Your task to perform on an android device: toggle pop-ups in chrome Image 0: 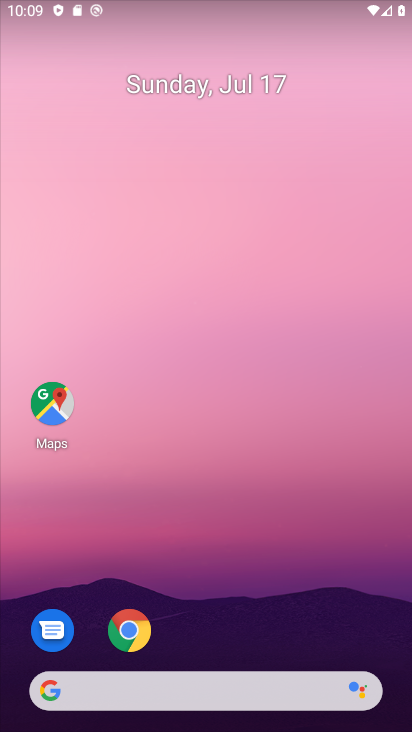
Step 0: drag from (334, 614) to (338, 52)
Your task to perform on an android device: toggle pop-ups in chrome Image 1: 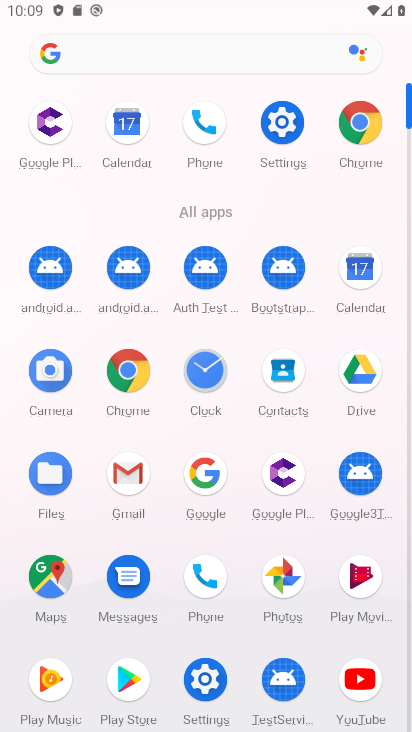
Step 1: click (131, 379)
Your task to perform on an android device: toggle pop-ups in chrome Image 2: 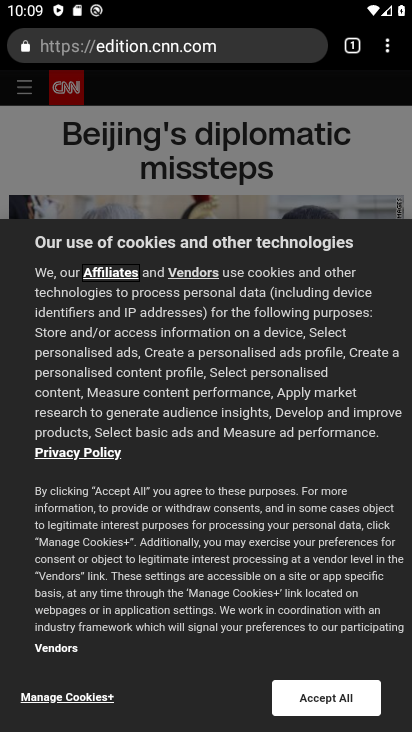
Step 2: click (389, 53)
Your task to perform on an android device: toggle pop-ups in chrome Image 3: 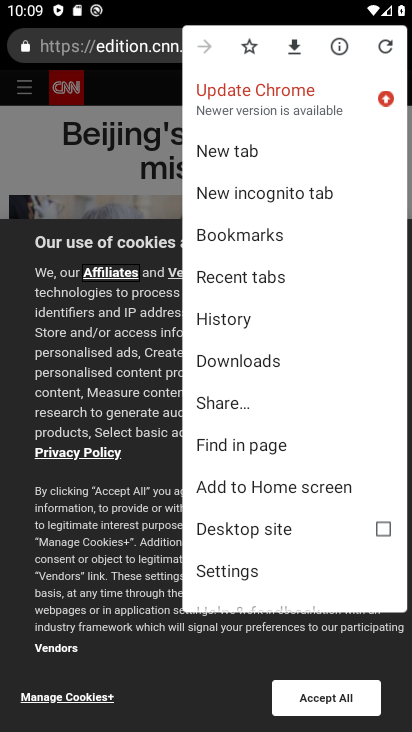
Step 3: drag from (363, 382) to (363, 287)
Your task to perform on an android device: toggle pop-ups in chrome Image 4: 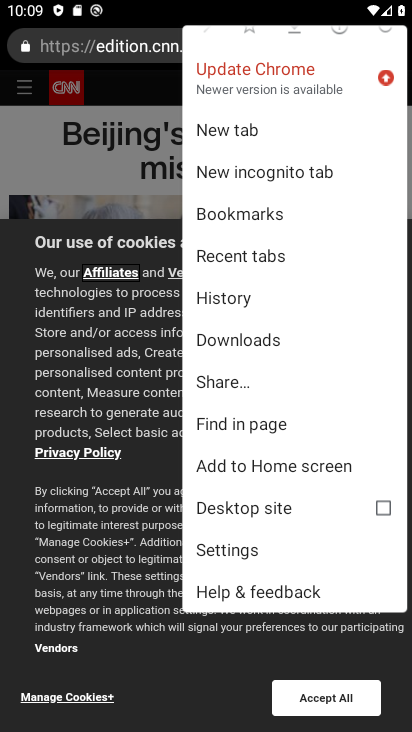
Step 4: click (259, 555)
Your task to perform on an android device: toggle pop-ups in chrome Image 5: 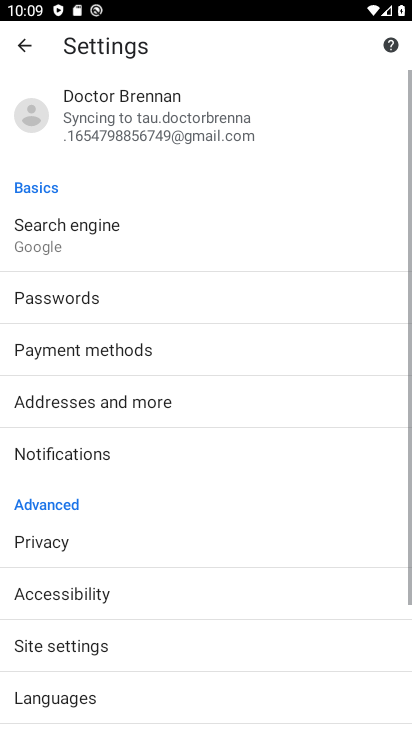
Step 5: drag from (335, 512) to (342, 427)
Your task to perform on an android device: toggle pop-ups in chrome Image 6: 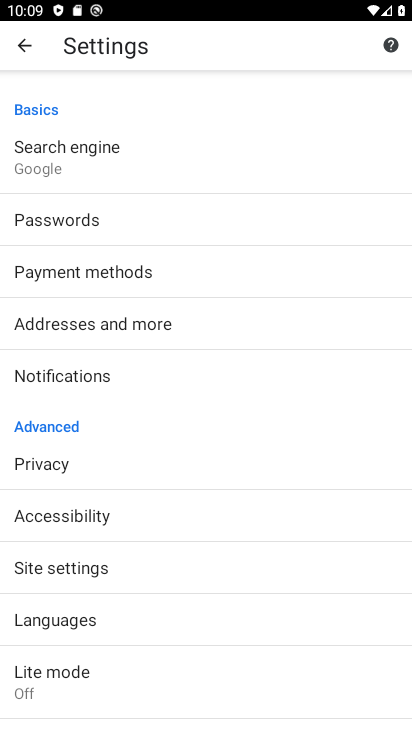
Step 6: drag from (342, 506) to (343, 402)
Your task to perform on an android device: toggle pop-ups in chrome Image 7: 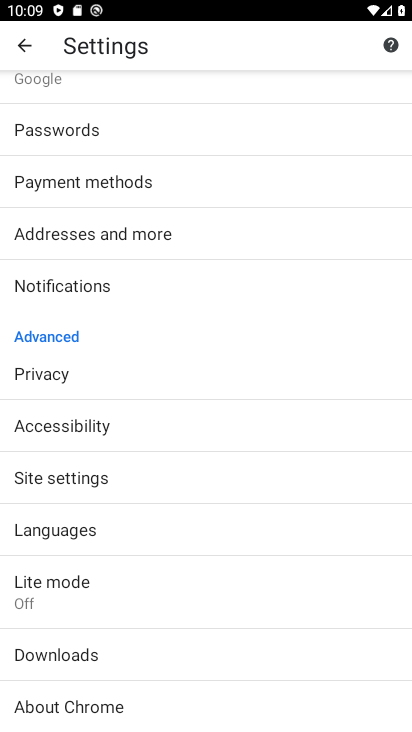
Step 7: drag from (322, 525) to (322, 383)
Your task to perform on an android device: toggle pop-ups in chrome Image 8: 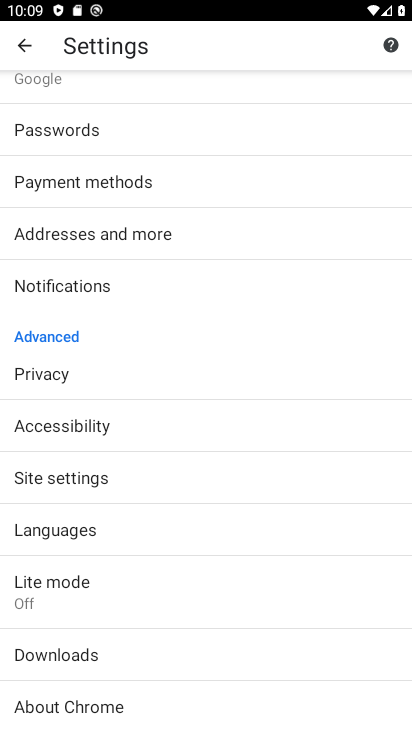
Step 8: click (283, 480)
Your task to perform on an android device: toggle pop-ups in chrome Image 9: 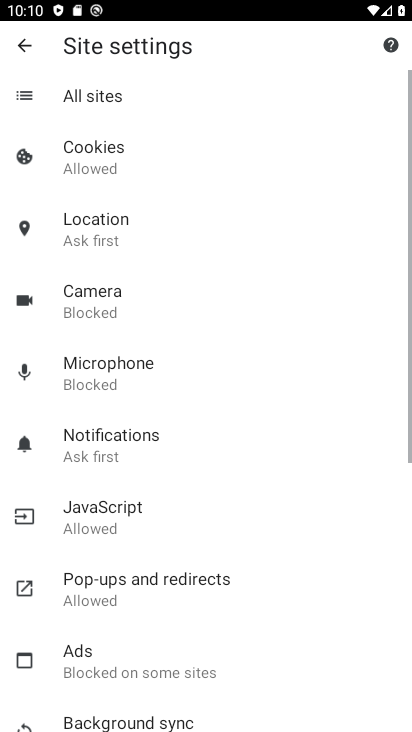
Step 9: drag from (309, 535) to (316, 405)
Your task to perform on an android device: toggle pop-ups in chrome Image 10: 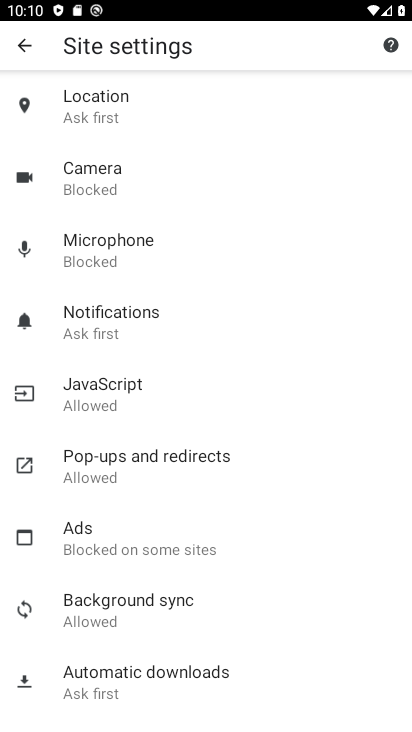
Step 10: drag from (337, 571) to (340, 445)
Your task to perform on an android device: toggle pop-ups in chrome Image 11: 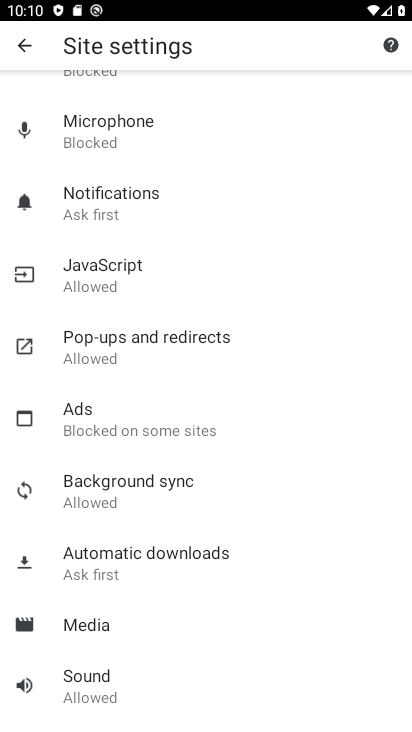
Step 11: drag from (339, 585) to (338, 449)
Your task to perform on an android device: toggle pop-ups in chrome Image 12: 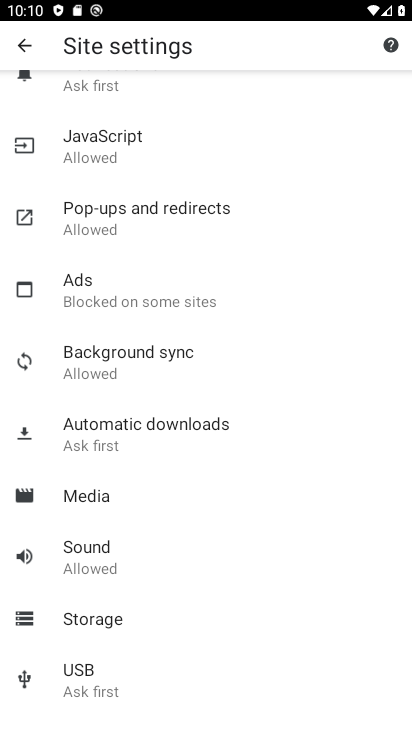
Step 12: drag from (332, 186) to (351, 312)
Your task to perform on an android device: toggle pop-ups in chrome Image 13: 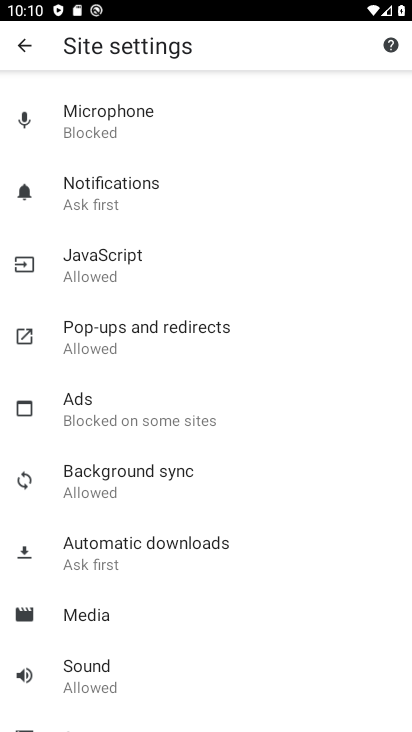
Step 13: drag from (331, 166) to (334, 305)
Your task to perform on an android device: toggle pop-ups in chrome Image 14: 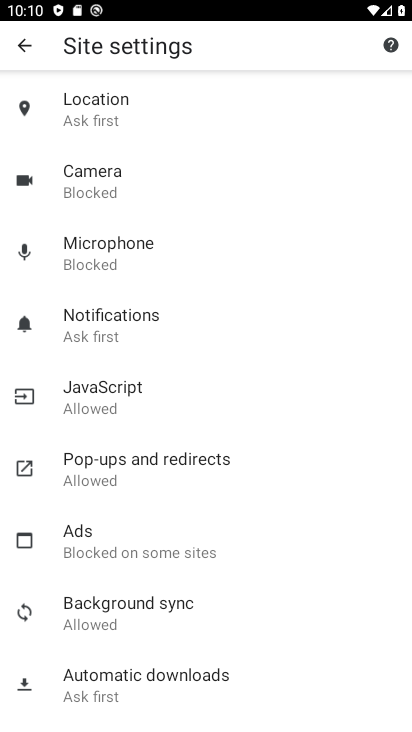
Step 14: drag from (325, 131) to (325, 334)
Your task to perform on an android device: toggle pop-ups in chrome Image 15: 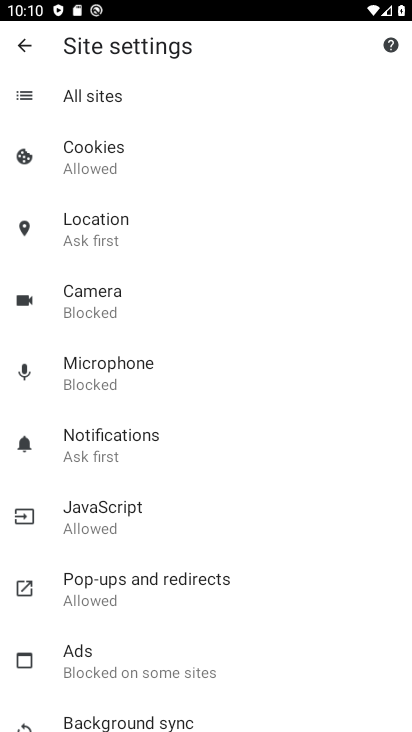
Step 15: drag from (314, 485) to (316, 382)
Your task to perform on an android device: toggle pop-ups in chrome Image 16: 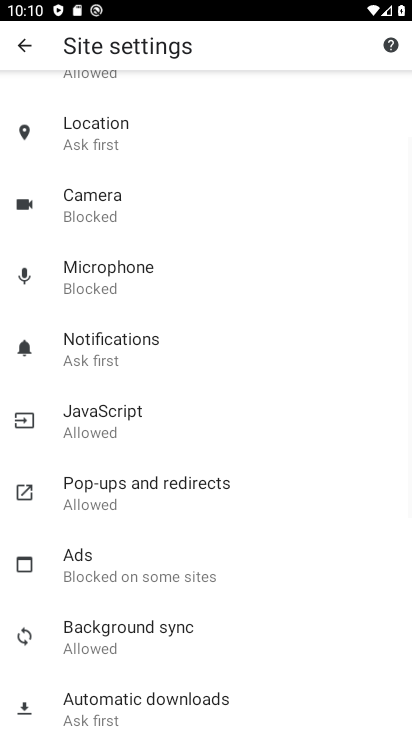
Step 16: drag from (318, 524) to (320, 299)
Your task to perform on an android device: toggle pop-ups in chrome Image 17: 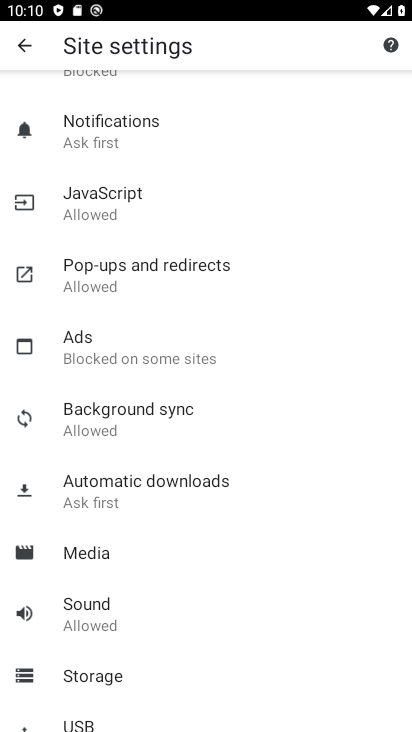
Step 17: drag from (307, 486) to (317, 316)
Your task to perform on an android device: toggle pop-ups in chrome Image 18: 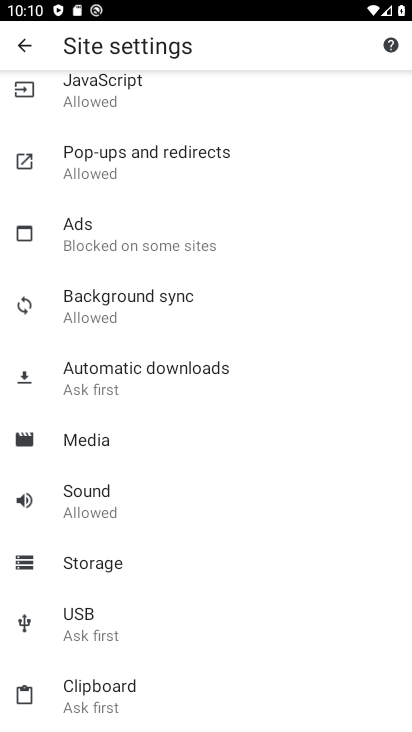
Step 18: click (205, 159)
Your task to perform on an android device: toggle pop-ups in chrome Image 19: 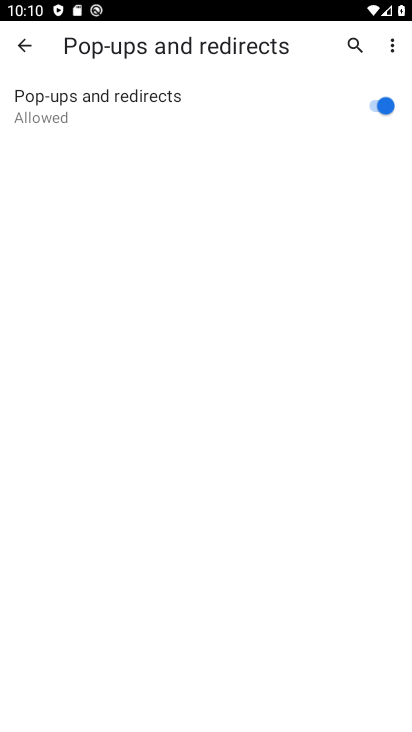
Step 19: click (385, 110)
Your task to perform on an android device: toggle pop-ups in chrome Image 20: 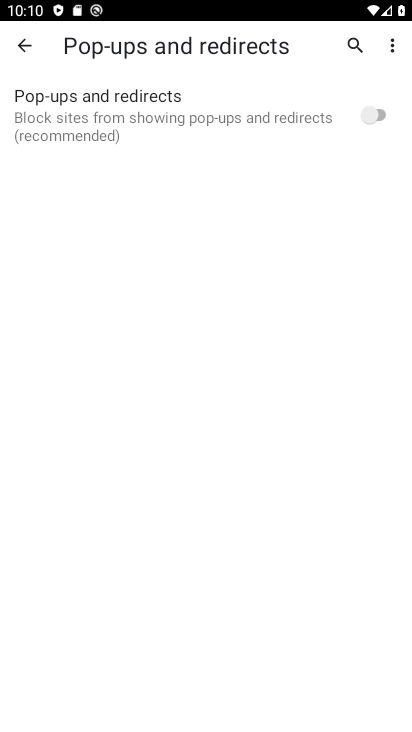
Step 20: task complete